Your task to perform on an android device: Open calendar and show me the third week of next month Image 0: 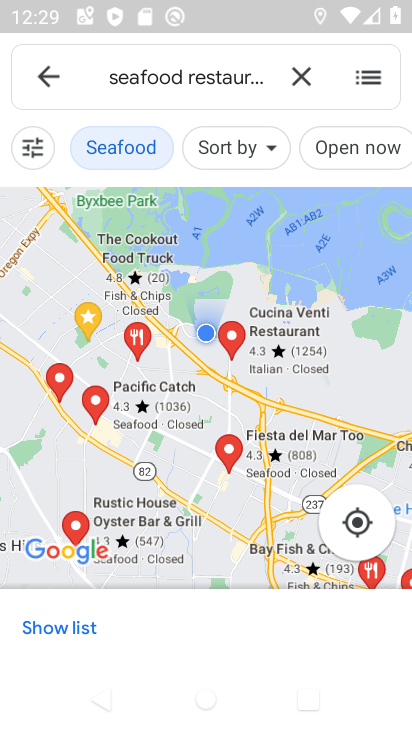
Step 0: press home button
Your task to perform on an android device: Open calendar and show me the third week of next month Image 1: 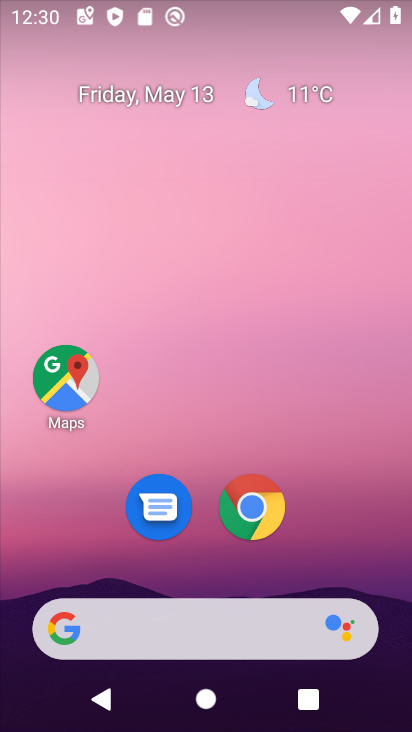
Step 1: drag from (215, 582) to (147, 8)
Your task to perform on an android device: Open calendar and show me the third week of next month Image 2: 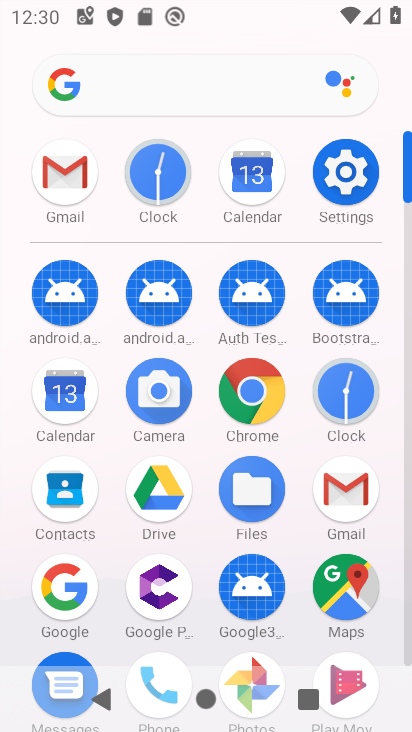
Step 2: click (64, 419)
Your task to perform on an android device: Open calendar and show me the third week of next month Image 3: 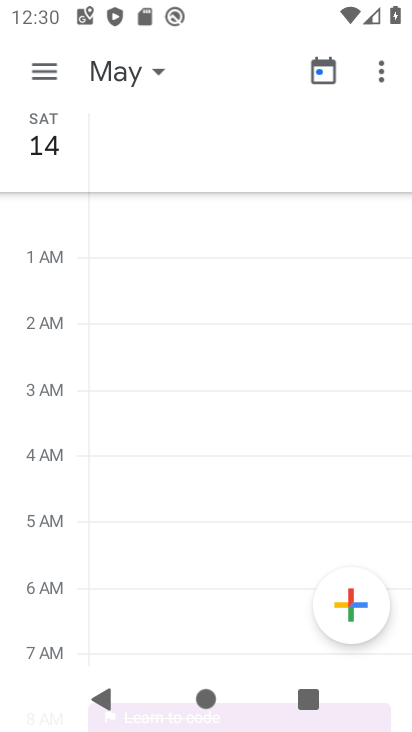
Step 3: click (47, 69)
Your task to perform on an android device: Open calendar and show me the third week of next month Image 4: 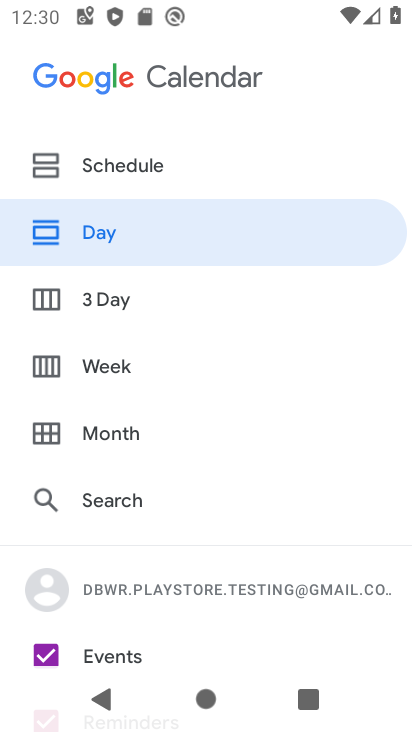
Step 4: click (104, 358)
Your task to perform on an android device: Open calendar and show me the third week of next month Image 5: 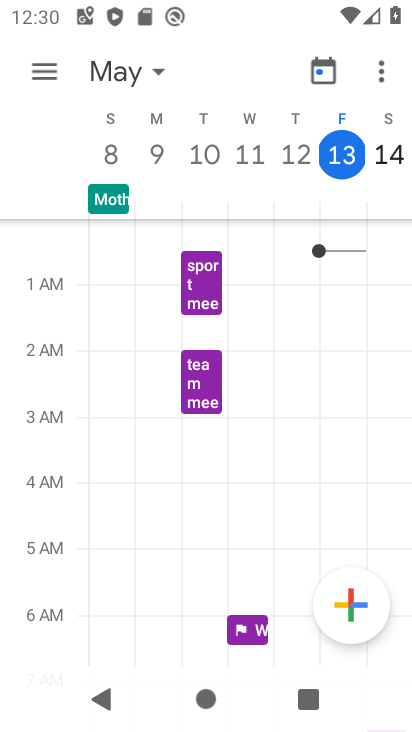
Step 5: task complete